Your task to perform on an android device: Open the calendar app, open the side menu, and click the "Day" option Image 0: 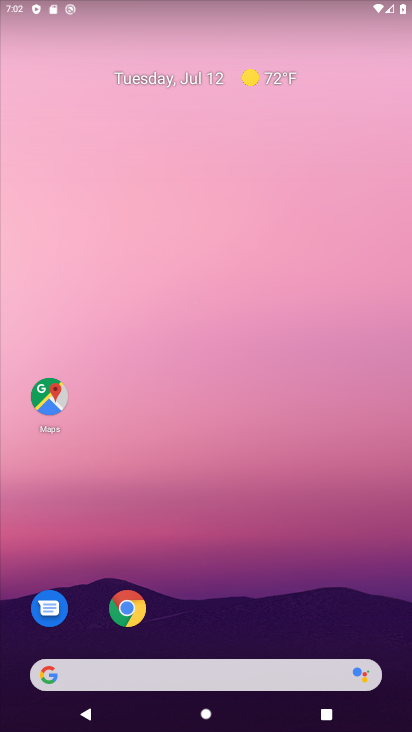
Step 0: drag from (242, 563) to (153, 129)
Your task to perform on an android device: Open the calendar app, open the side menu, and click the "Day" option Image 1: 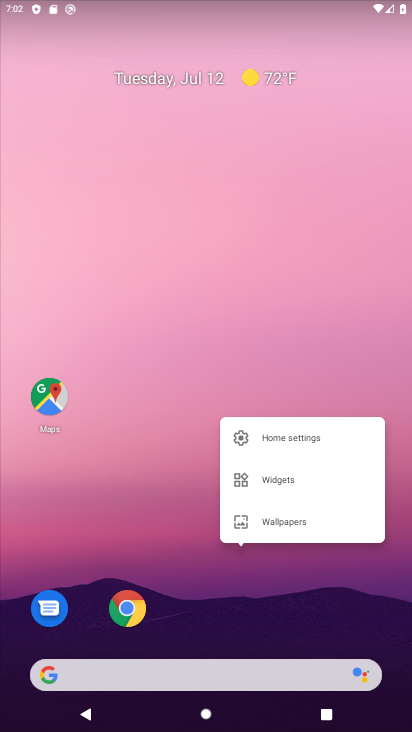
Step 1: click (173, 476)
Your task to perform on an android device: Open the calendar app, open the side menu, and click the "Day" option Image 2: 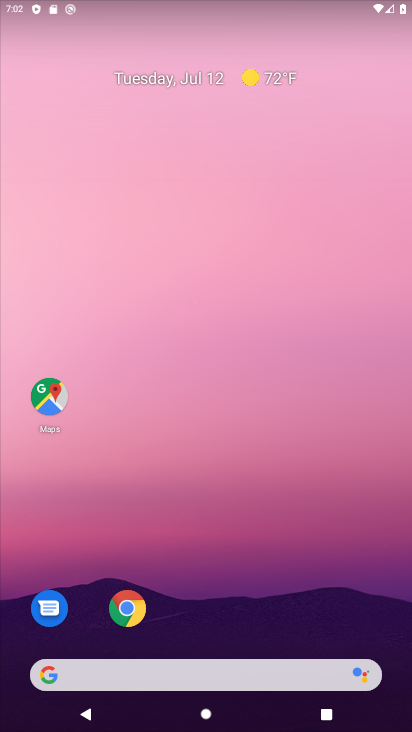
Step 2: drag from (243, 558) to (180, 33)
Your task to perform on an android device: Open the calendar app, open the side menu, and click the "Day" option Image 3: 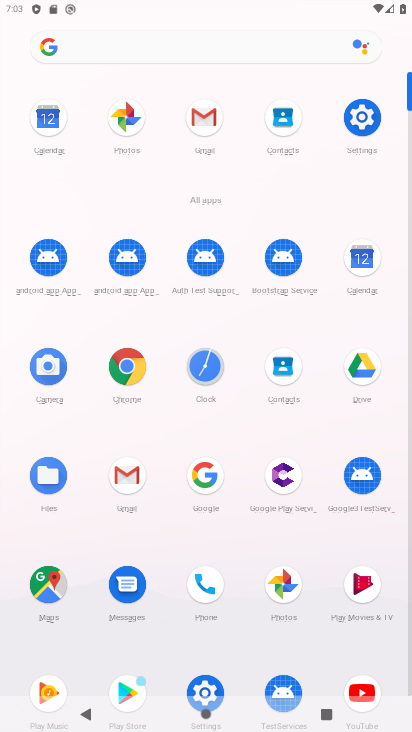
Step 3: click (361, 262)
Your task to perform on an android device: Open the calendar app, open the side menu, and click the "Day" option Image 4: 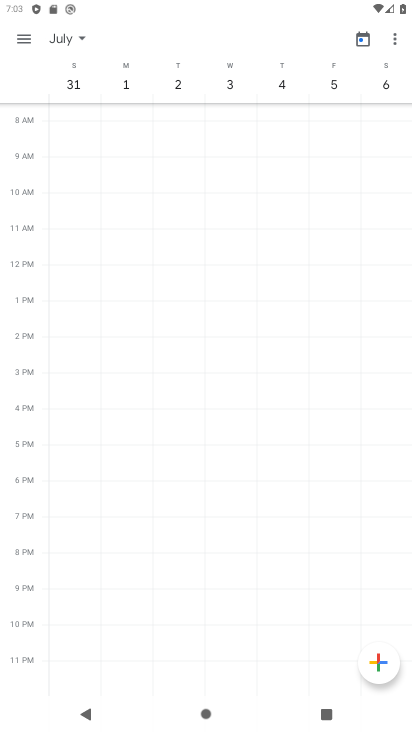
Step 4: click (21, 46)
Your task to perform on an android device: Open the calendar app, open the side menu, and click the "Day" option Image 5: 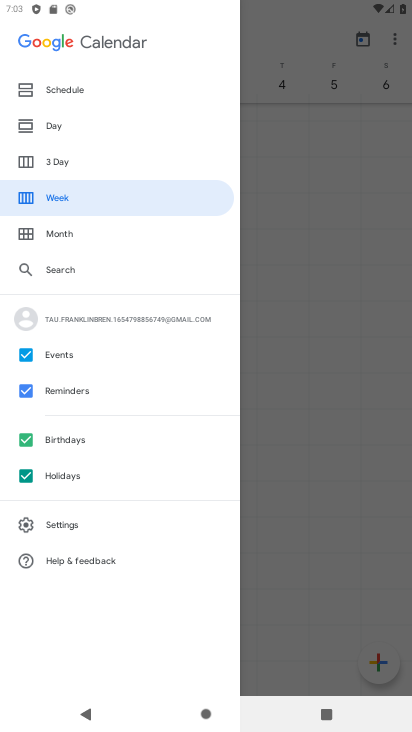
Step 5: click (53, 120)
Your task to perform on an android device: Open the calendar app, open the side menu, and click the "Day" option Image 6: 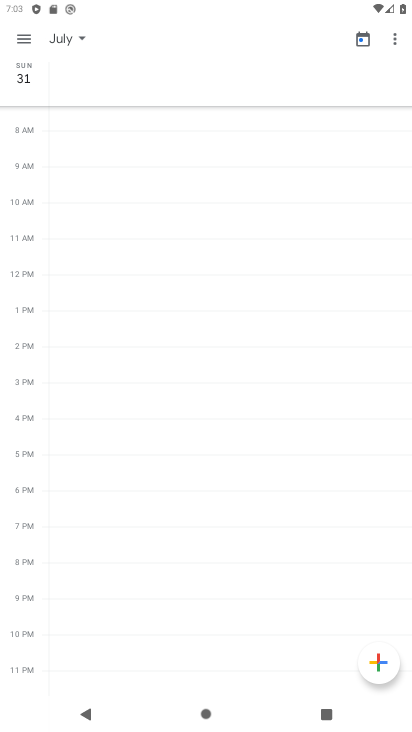
Step 6: task complete